Your task to perform on an android device: Find coffee shops on Maps Image 0: 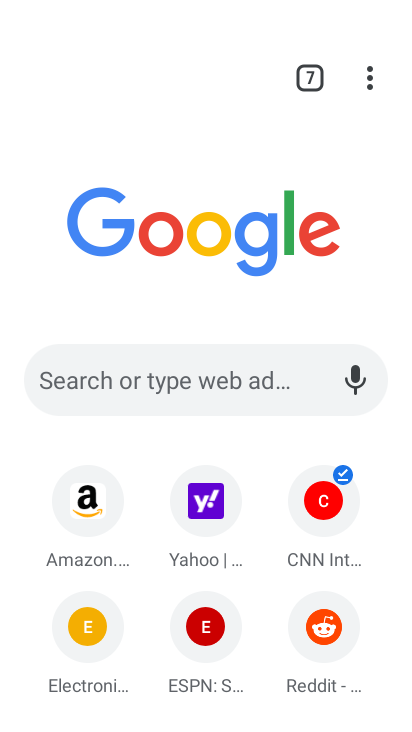
Step 0: drag from (219, 617) to (213, 171)
Your task to perform on an android device: Find coffee shops on Maps Image 1: 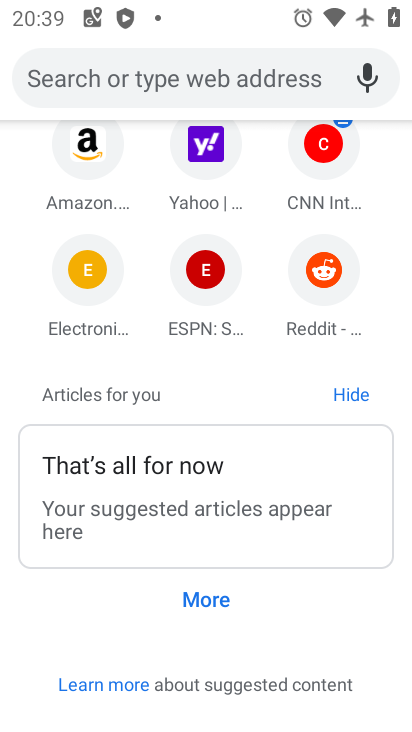
Step 1: press home button
Your task to perform on an android device: Find coffee shops on Maps Image 2: 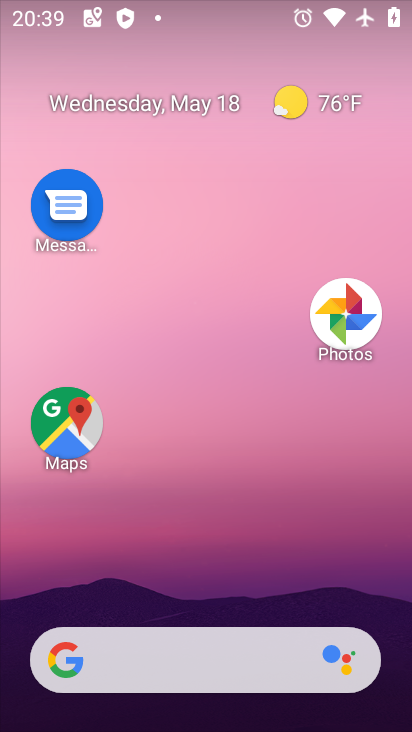
Step 2: drag from (179, 623) to (113, 22)
Your task to perform on an android device: Find coffee shops on Maps Image 3: 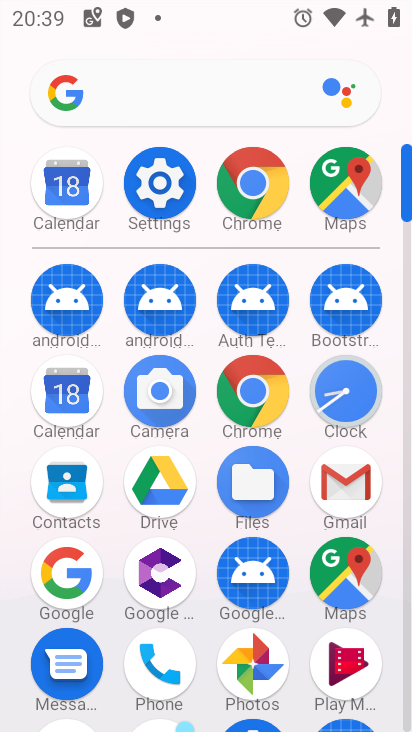
Step 3: click (344, 570)
Your task to perform on an android device: Find coffee shops on Maps Image 4: 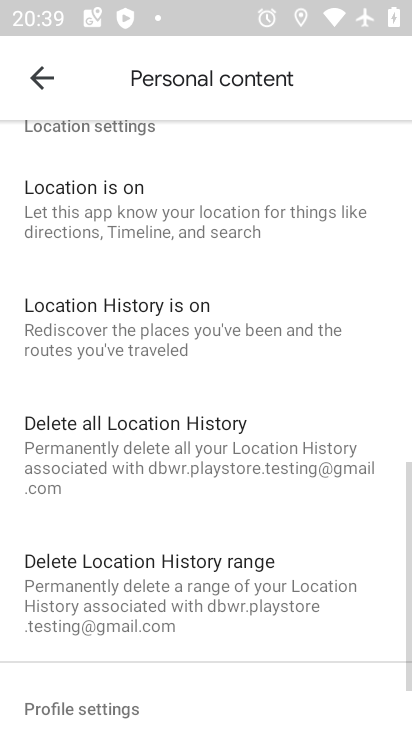
Step 4: click (54, 69)
Your task to perform on an android device: Find coffee shops on Maps Image 5: 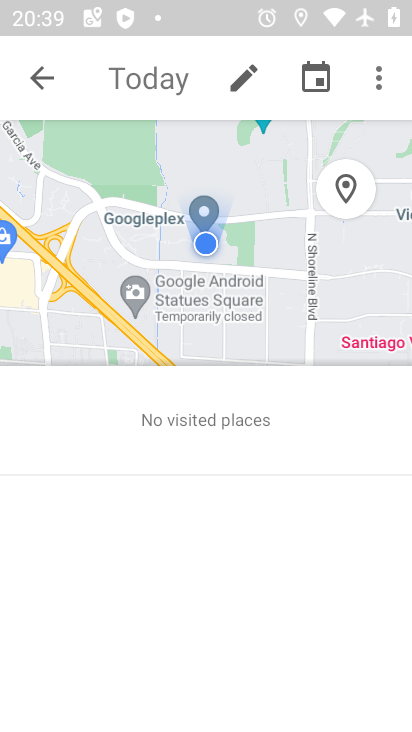
Step 5: click (11, 85)
Your task to perform on an android device: Find coffee shops on Maps Image 6: 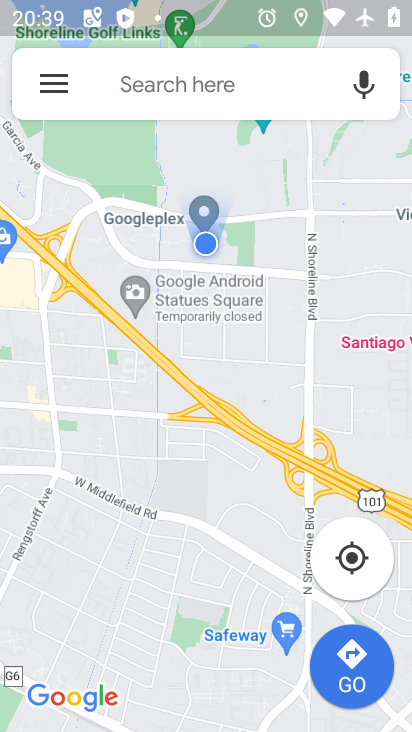
Step 6: click (213, 76)
Your task to perform on an android device: Find coffee shops on Maps Image 7: 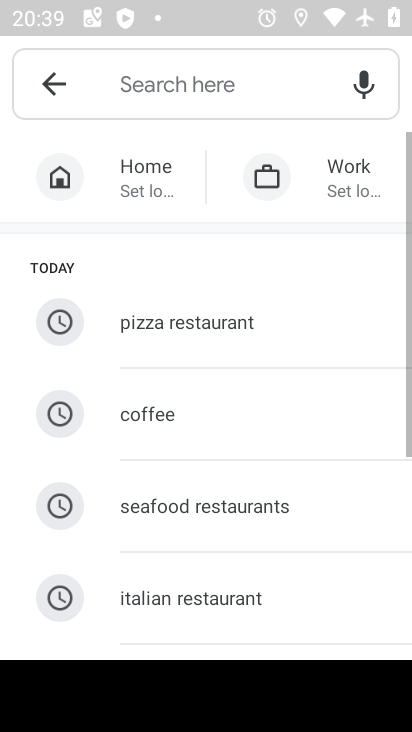
Step 7: click (161, 404)
Your task to perform on an android device: Find coffee shops on Maps Image 8: 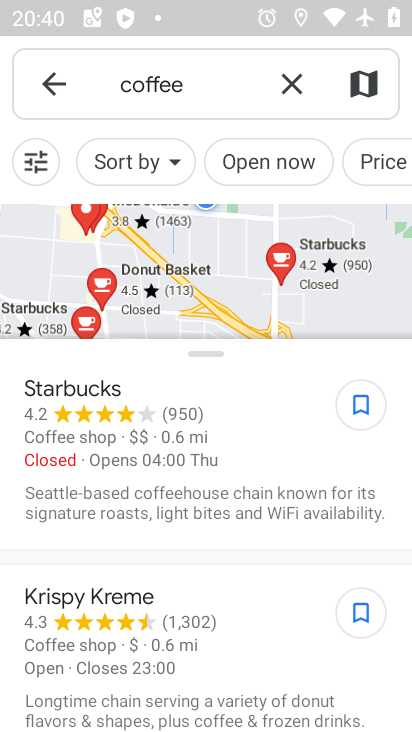
Step 8: task complete